Your task to perform on an android device: See recent photos Image 0: 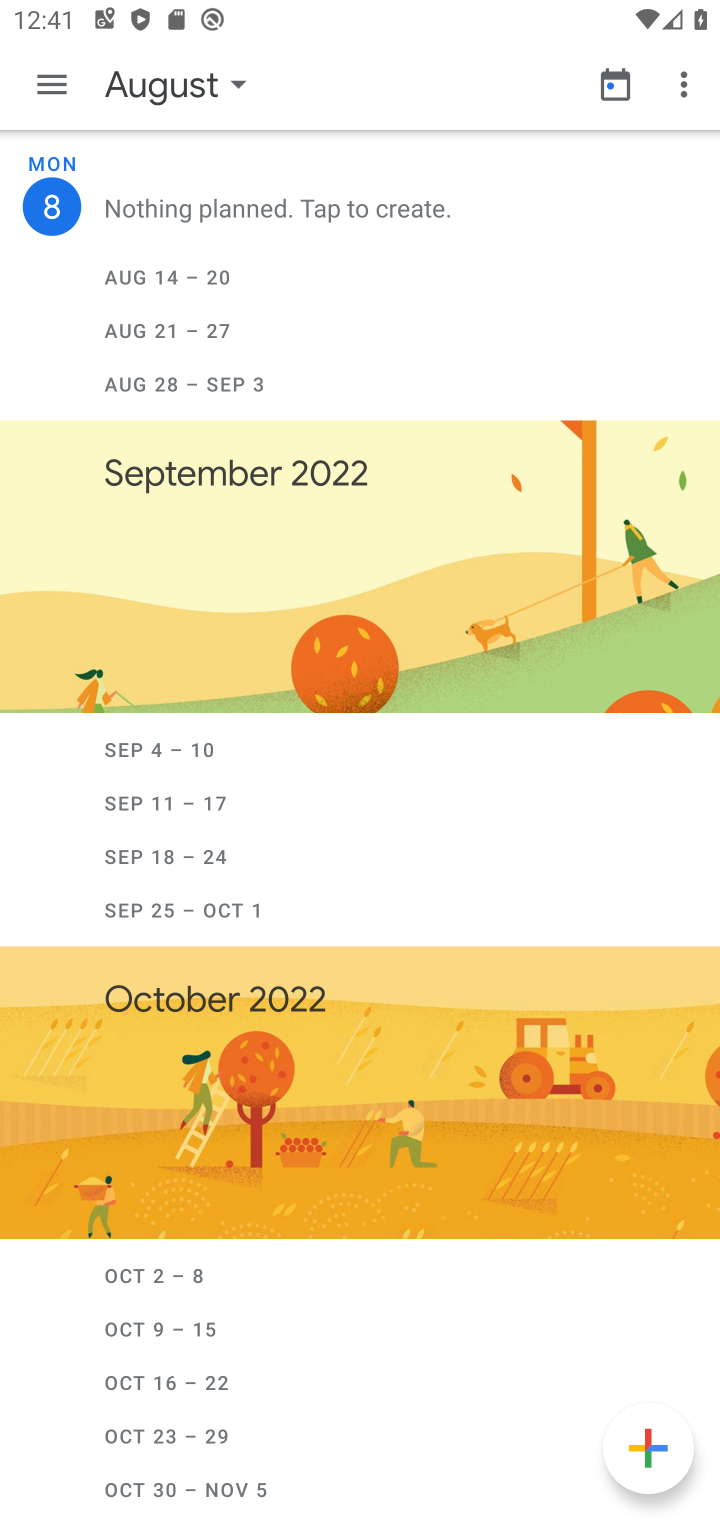
Step 0: press back button
Your task to perform on an android device: See recent photos Image 1: 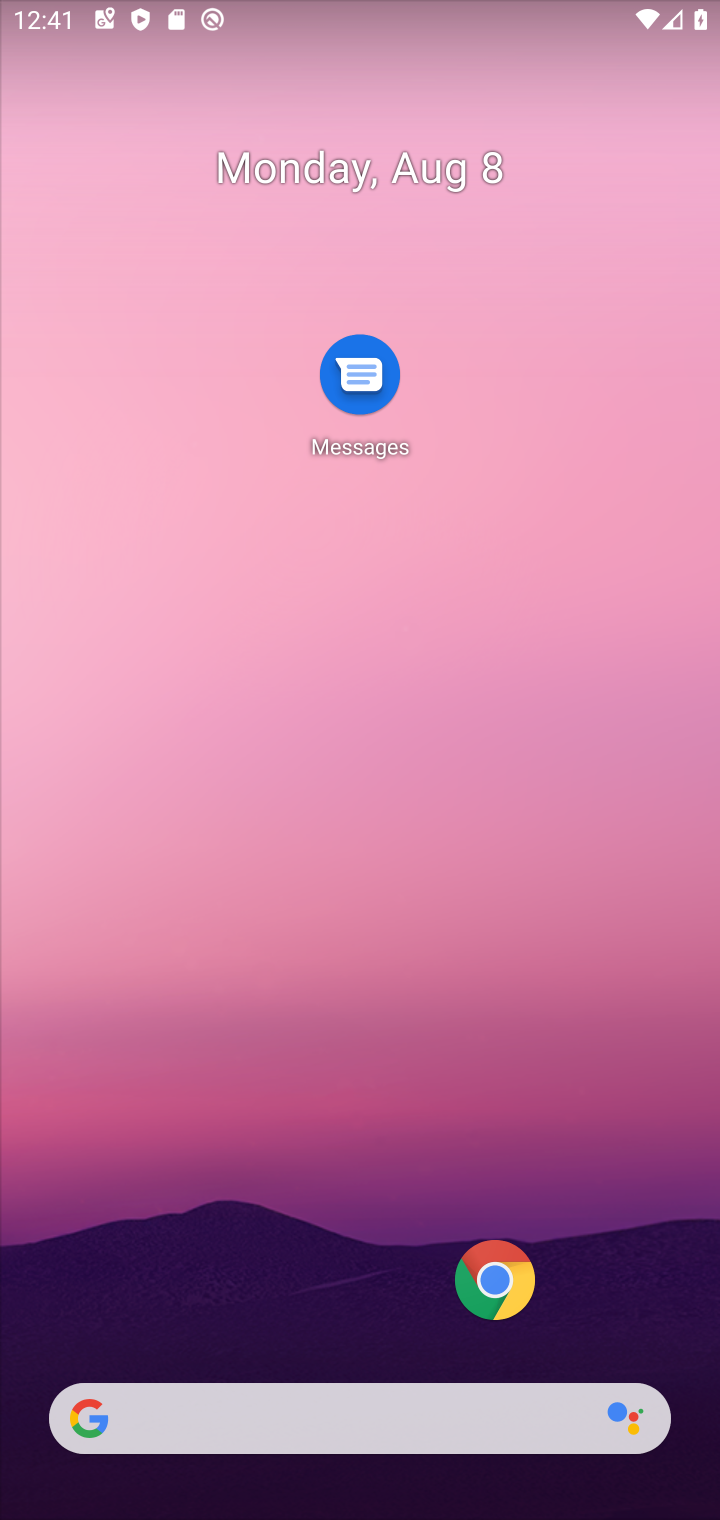
Step 1: press back button
Your task to perform on an android device: See recent photos Image 2: 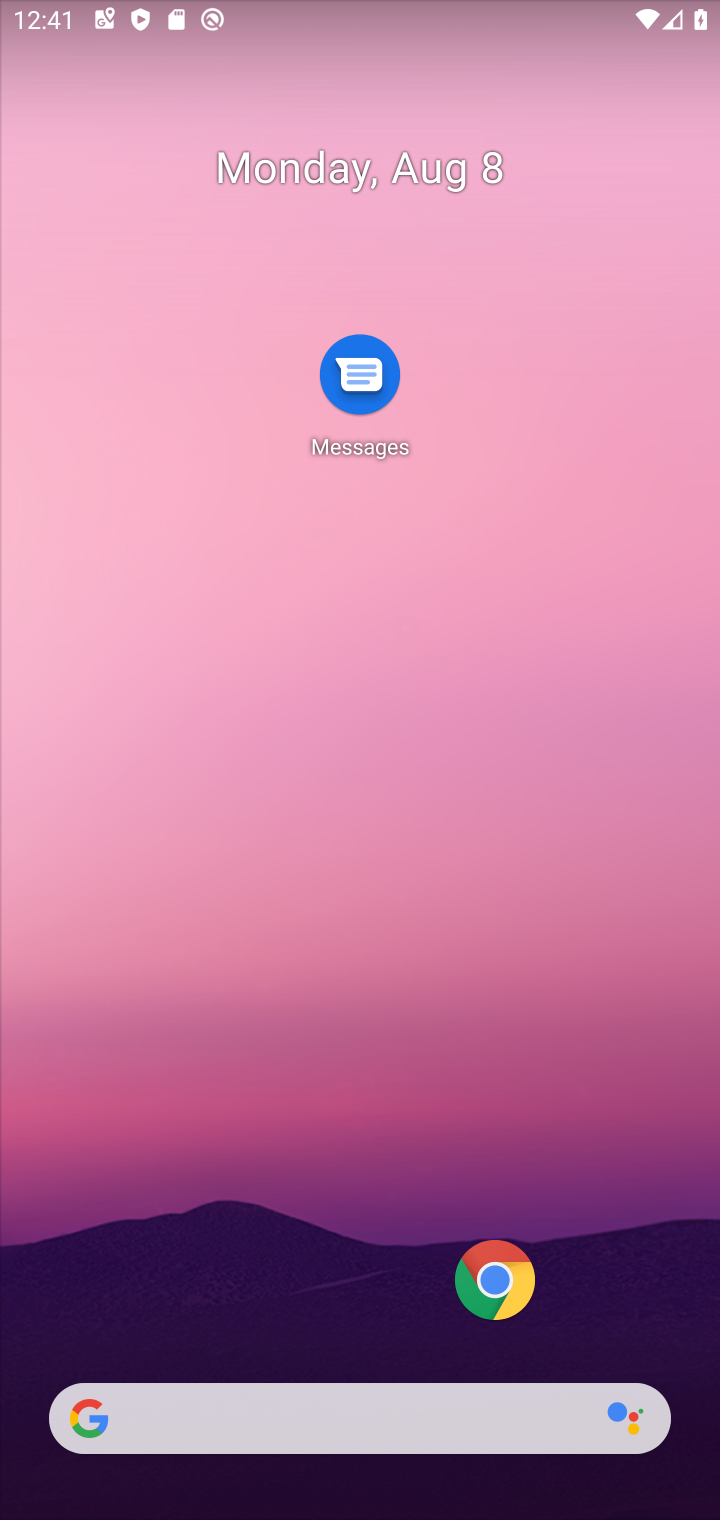
Step 2: drag from (316, 1065) to (491, 49)
Your task to perform on an android device: See recent photos Image 3: 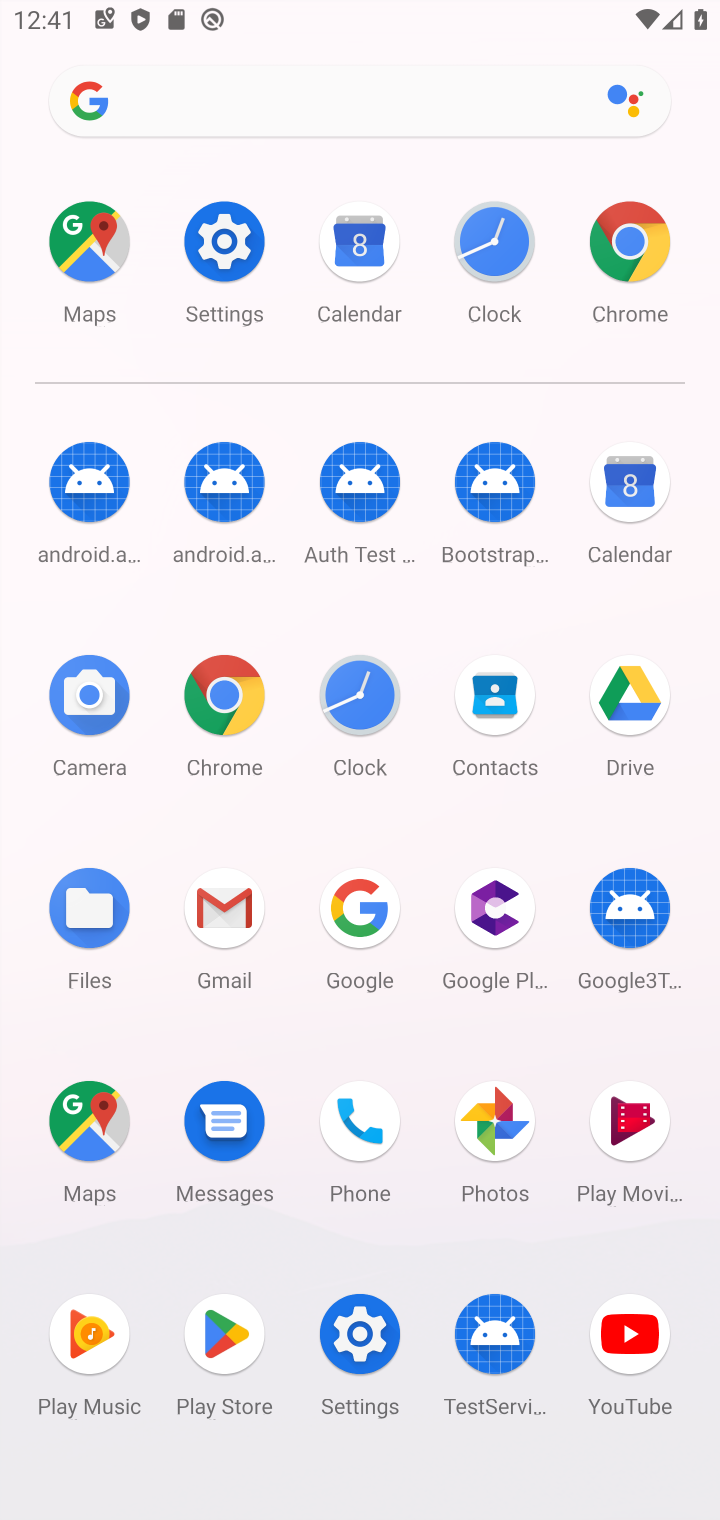
Step 3: click (484, 1136)
Your task to perform on an android device: See recent photos Image 4: 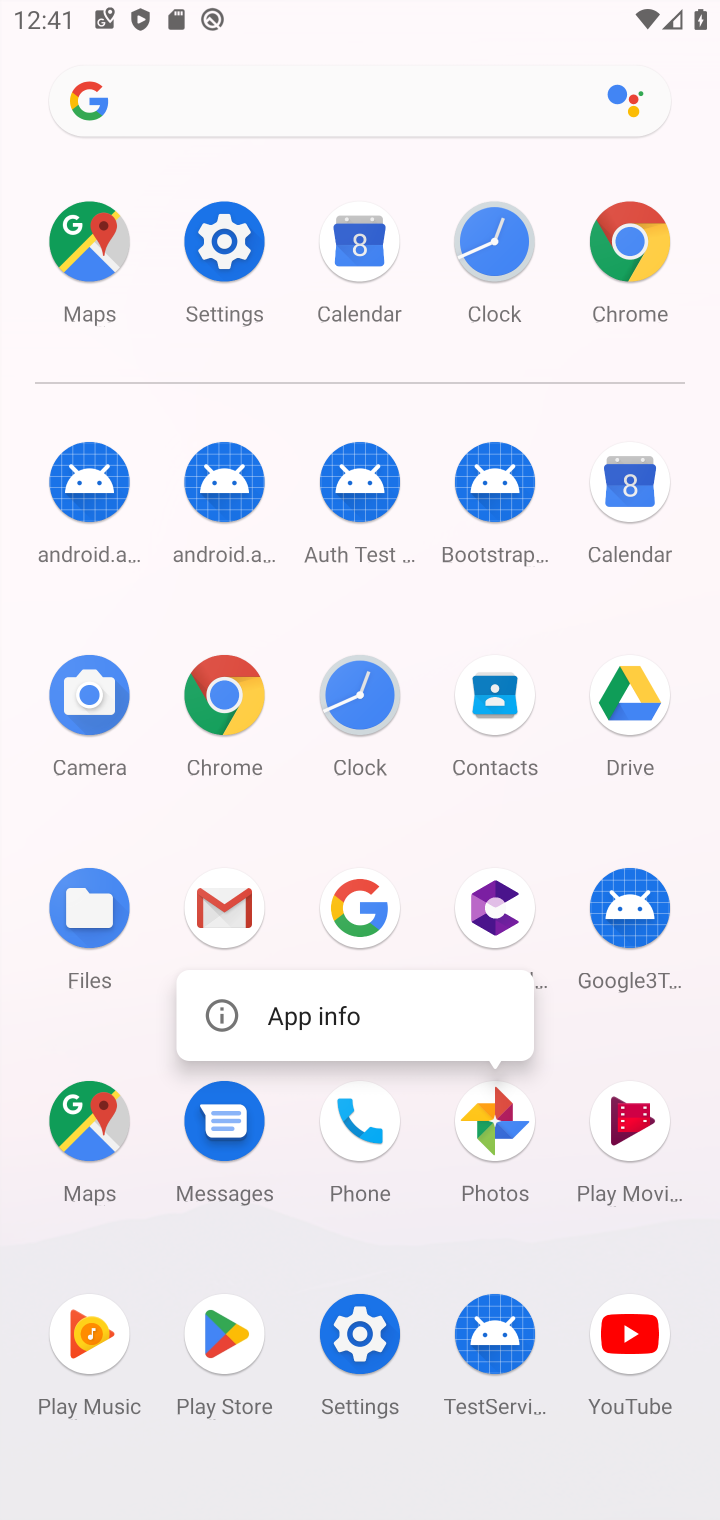
Step 4: click (494, 1124)
Your task to perform on an android device: See recent photos Image 5: 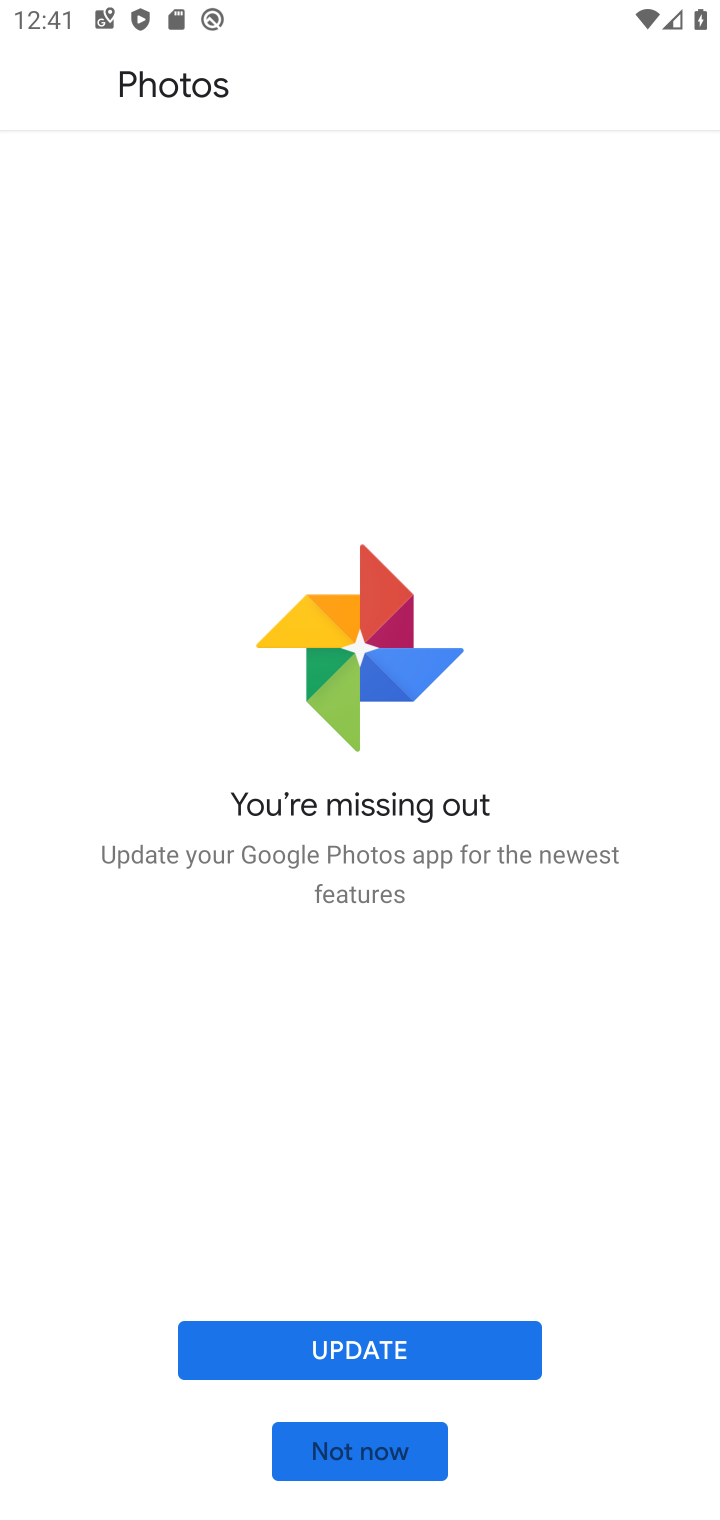
Step 5: task complete